Your task to perform on an android device: see sites visited before in the chrome app Image 0: 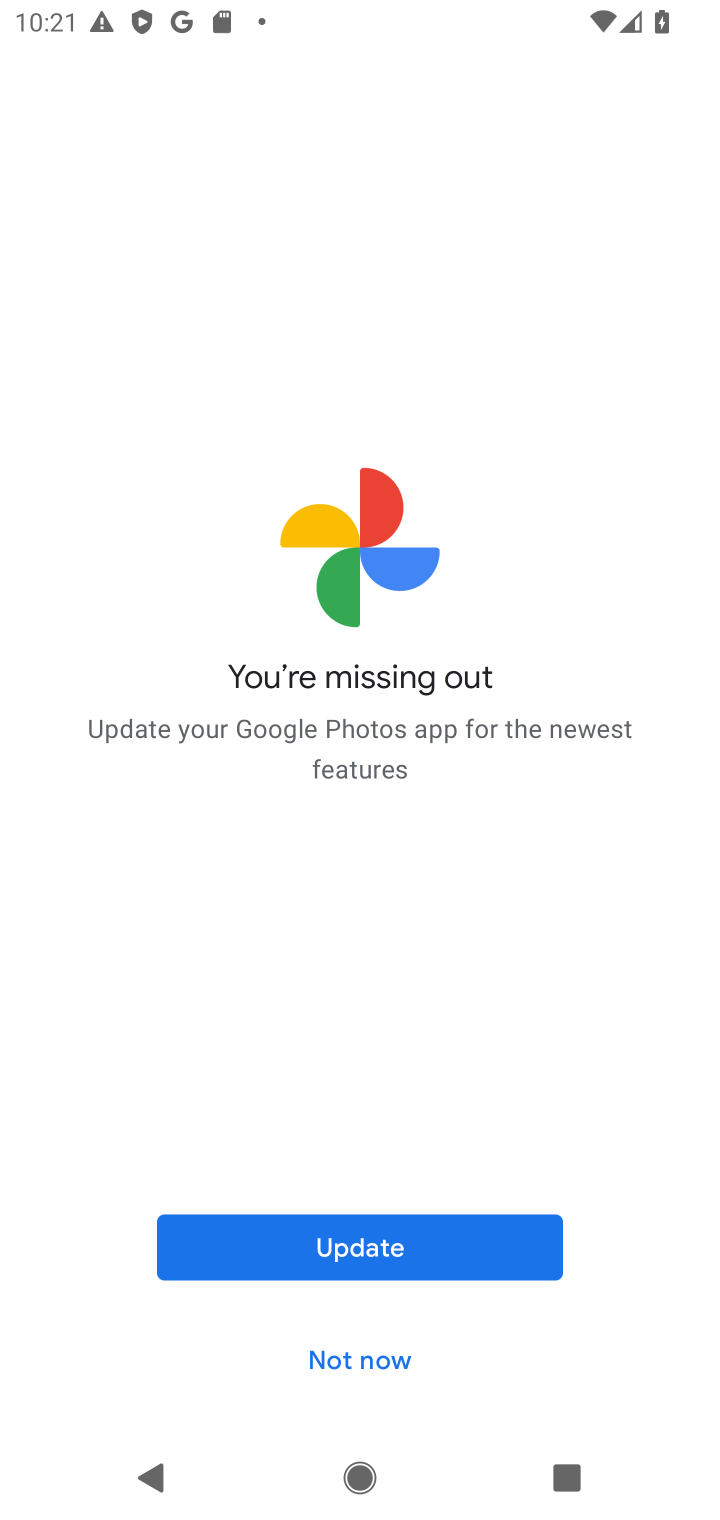
Step 0: press home button
Your task to perform on an android device: see sites visited before in the chrome app Image 1: 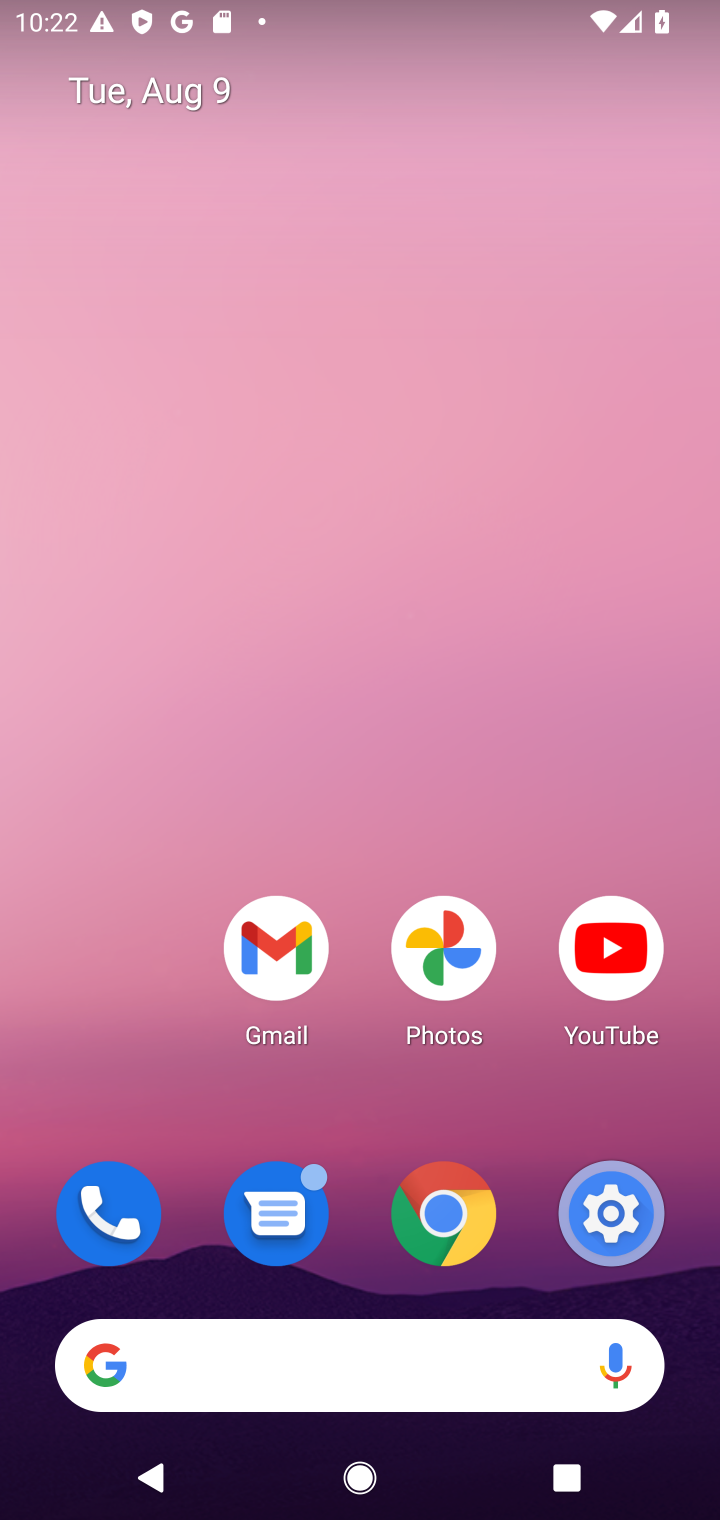
Step 1: click (399, 1227)
Your task to perform on an android device: see sites visited before in the chrome app Image 2: 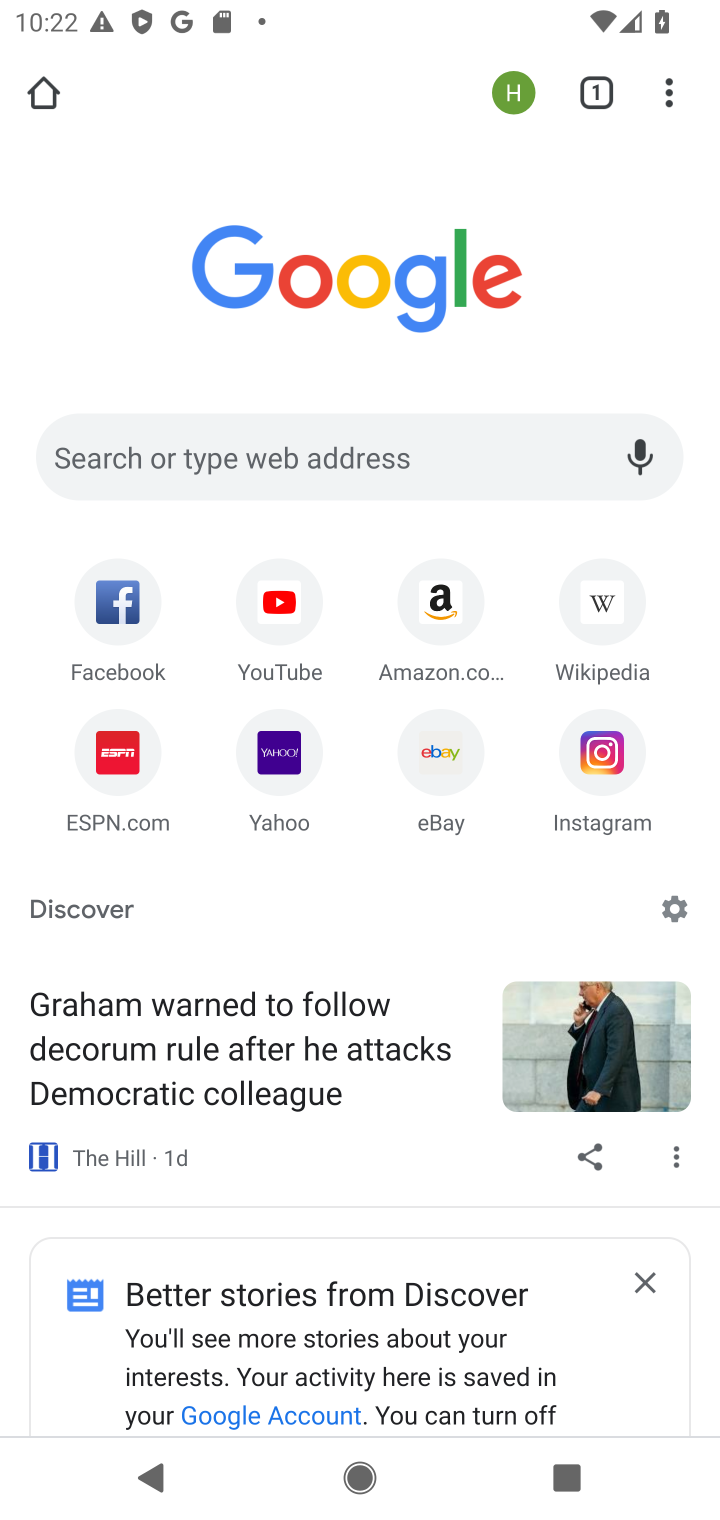
Step 2: click (659, 87)
Your task to perform on an android device: see sites visited before in the chrome app Image 3: 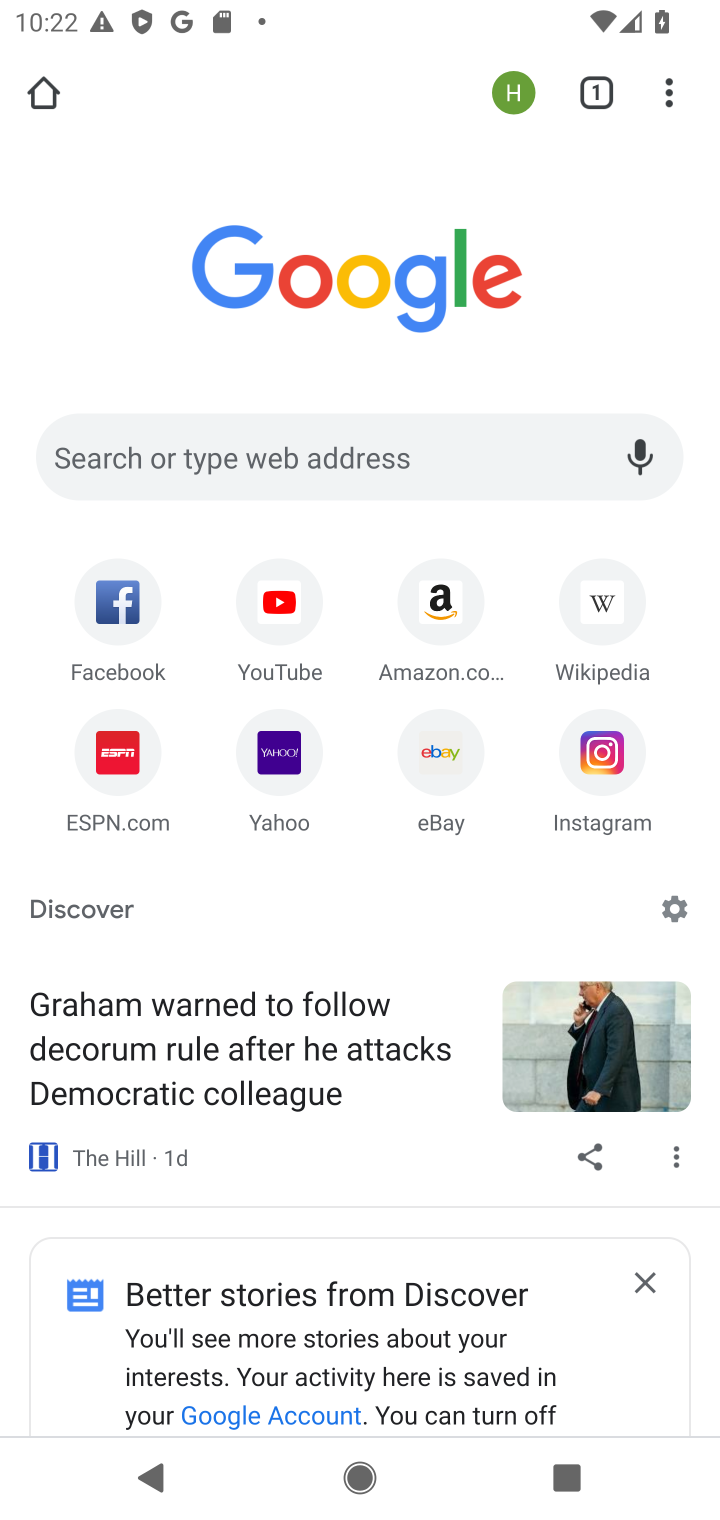
Step 3: task complete